Your task to perform on an android device: turn off priority inbox in the gmail app Image 0: 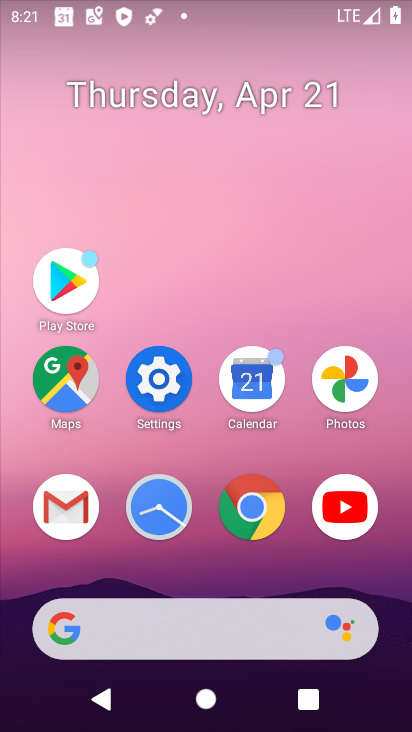
Step 0: click (64, 493)
Your task to perform on an android device: turn off priority inbox in the gmail app Image 1: 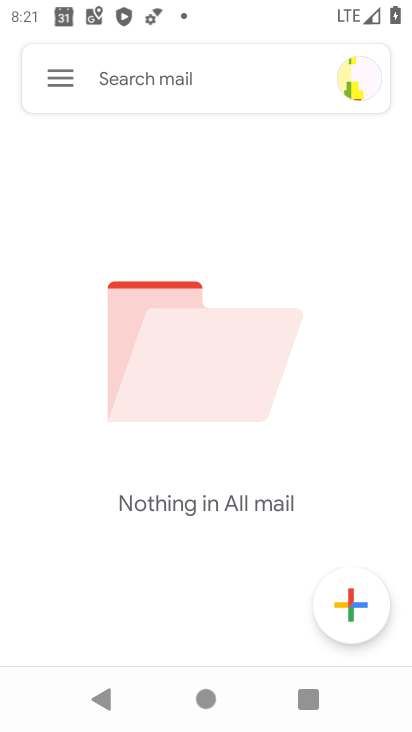
Step 1: click (61, 82)
Your task to perform on an android device: turn off priority inbox in the gmail app Image 2: 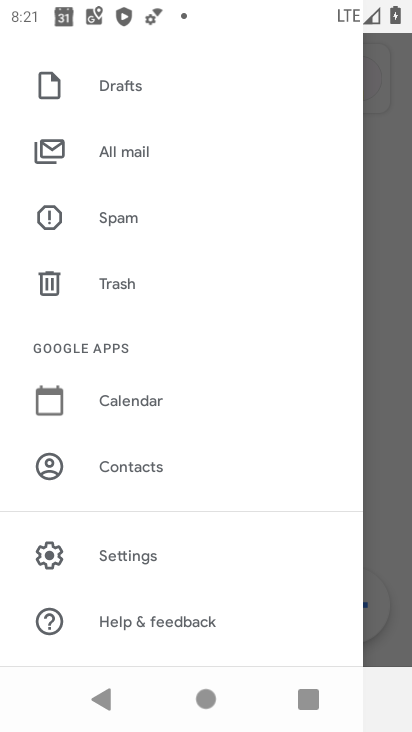
Step 2: click (133, 556)
Your task to perform on an android device: turn off priority inbox in the gmail app Image 3: 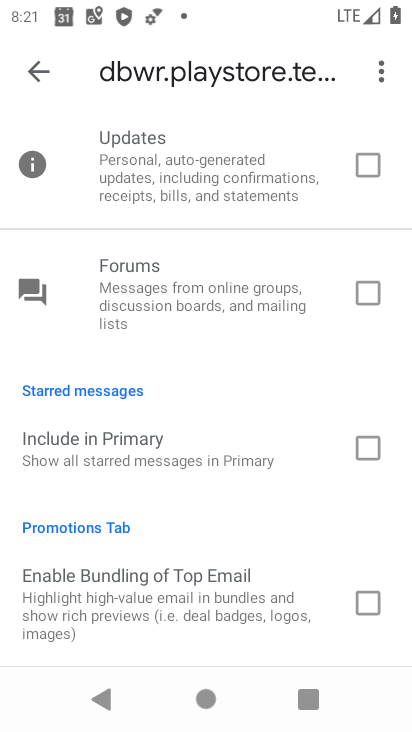
Step 3: drag from (211, 160) to (279, 665)
Your task to perform on an android device: turn off priority inbox in the gmail app Image 4: 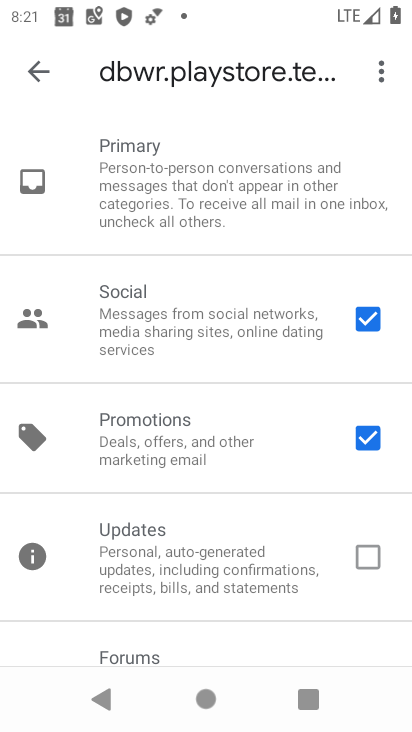
Step 4: drag from (257, 144) to (257, 480)
Your task to perform on an android device: turn off priority inbox in the gmail app Image 5: 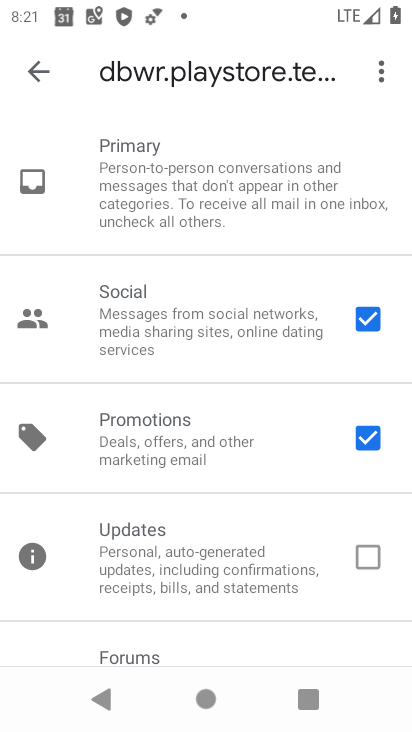
Step 5: click (27, 66)
Your task to perform on an android device: turn off priority inbox in the gmail app Image 6: 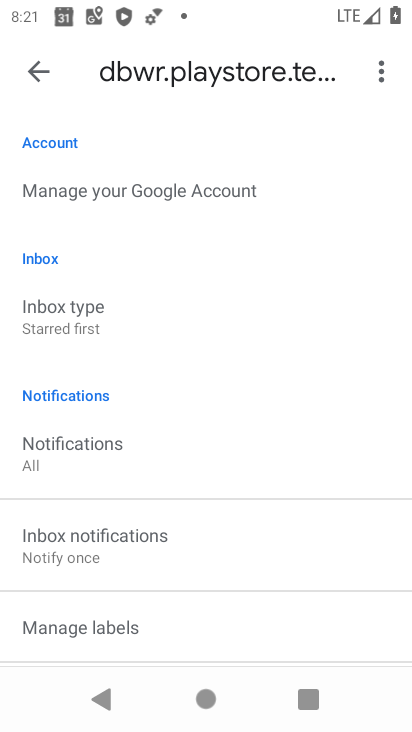
Step 6: click (57, 304)
Your task to perform on an android device: turn off priority inbox in the gmail app Image 7: 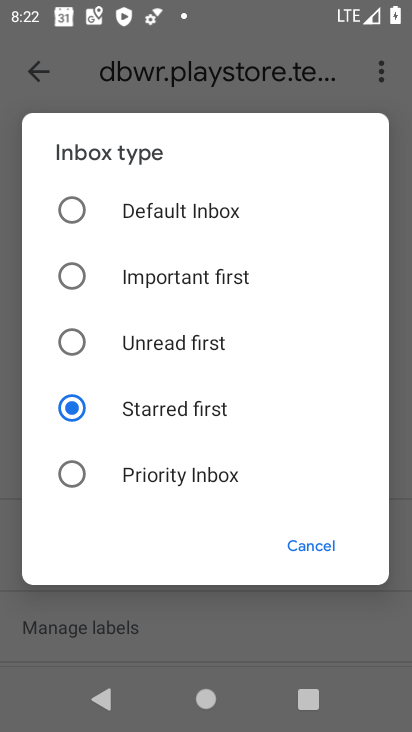
Step 7: task complete